Your task to perform on an android device: turn off airplane mode Image 0: 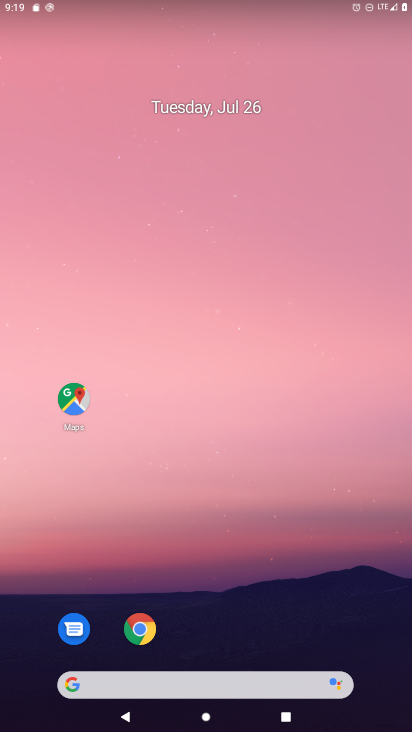
Step 0: drag from (234, 655) to (167, 70)
Your task to perform on an android device: turn off airplane mode Image 1: 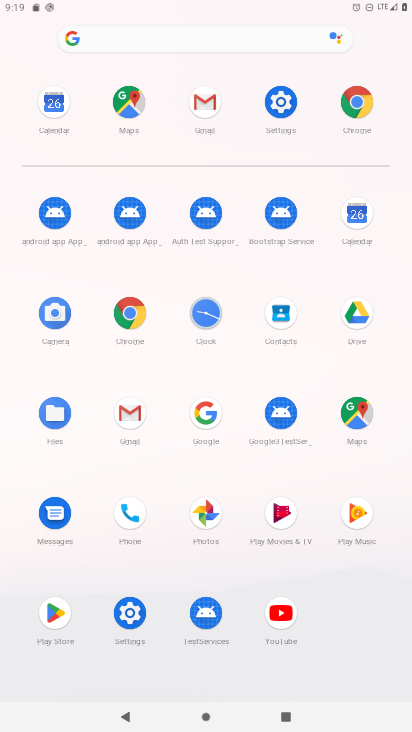
Step 1: click (288, 119)
Your task to perform on an android device: turn off airplane mode Image 2: 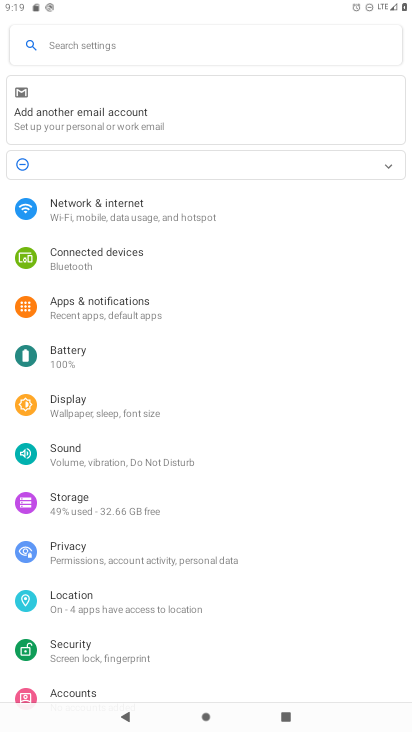
Step 2: click (49, 212)
Your task to perform on an android device: turn off airplane mode Image 3: 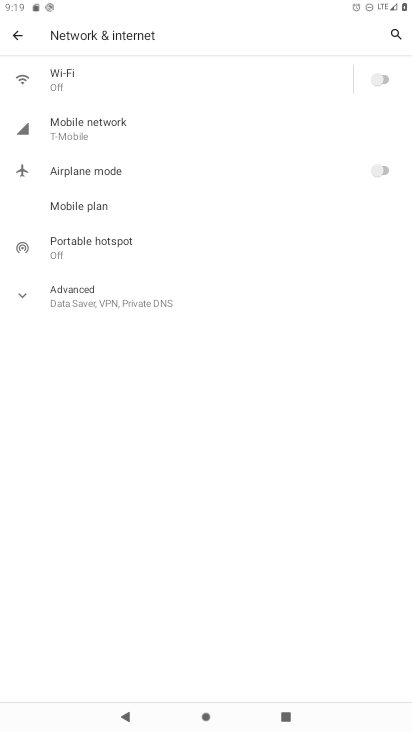
Step 3: task complete